Your task to perform on an android device: Search for Mexican restaurants on Maps Image 0: 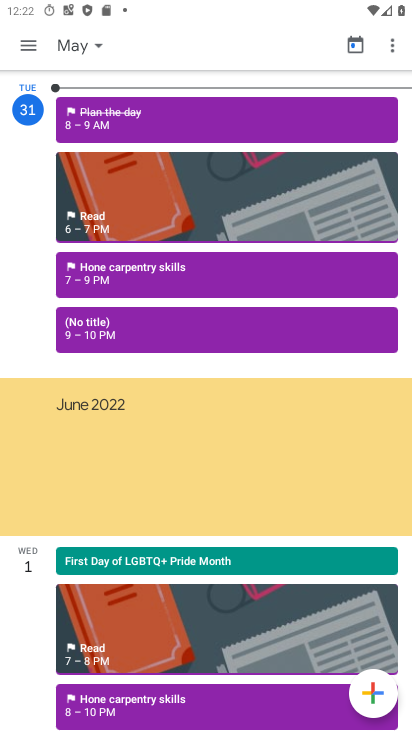
Step 0: press home button
Your task to perform on an android device: Search for Mexican restaurants on Maps Image 1: 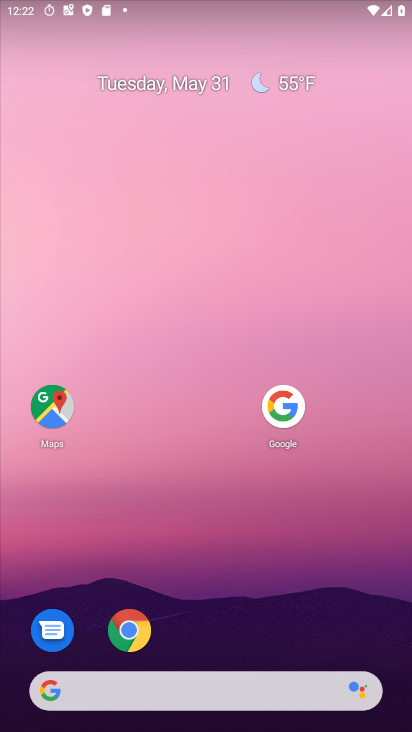
Step 1: click (44, 412)
Your task to perform on an android device: Search for Mexican restaurants on Maps Image 2: 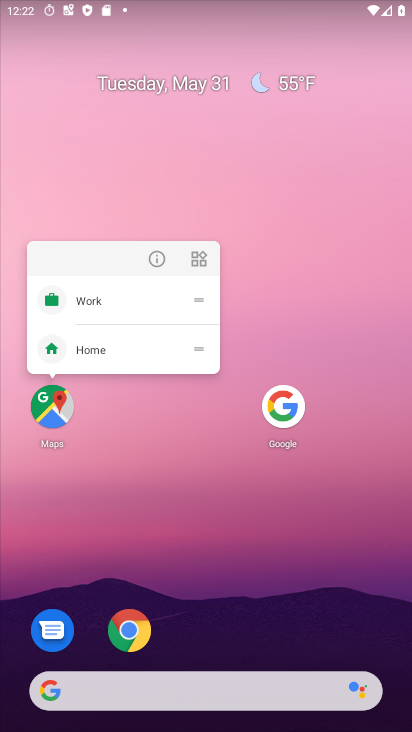
Step 2: click (51, 412)
Your task to perform on an android device: Search for Mexican restaurants on Maps Image 3: 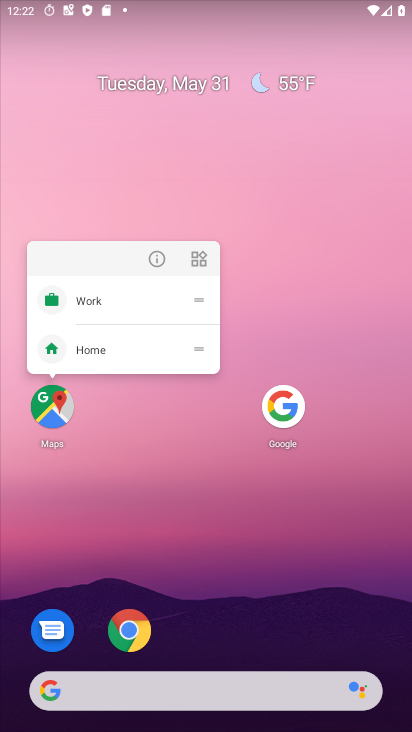
Step 3: click (51, 413)
Your task to perform on an android device: Search for Mexican restaurants on Maps Image 4: 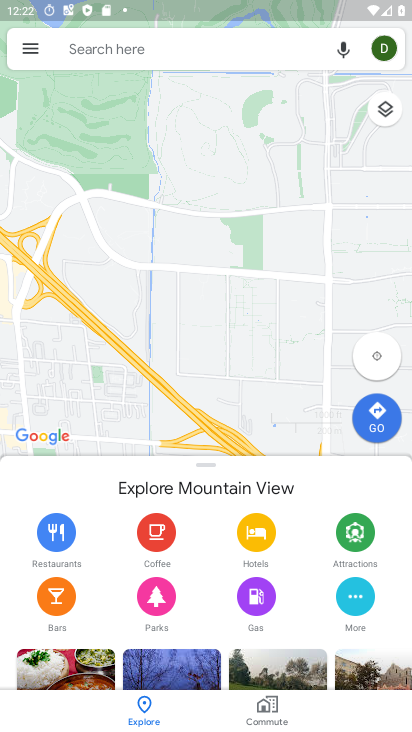
Step 4: click (215, 49)
Your task to perform on an android device: Search for Mexican restaurants on Maps Image 5: 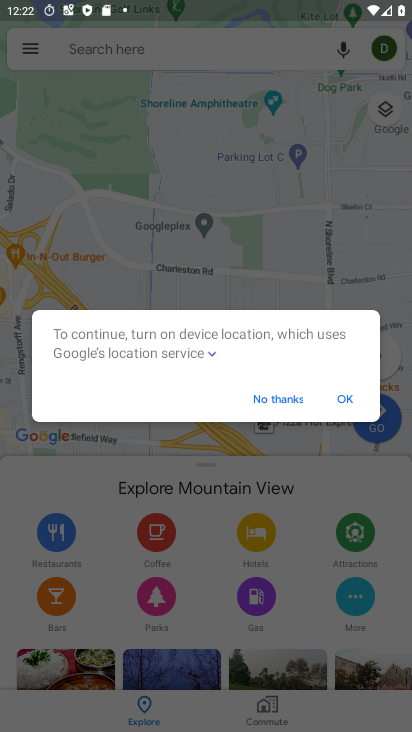
Step 5: click (346, 402)
Your task to perform on an android device: Search for Mexican restaurants on Maps Image 6: 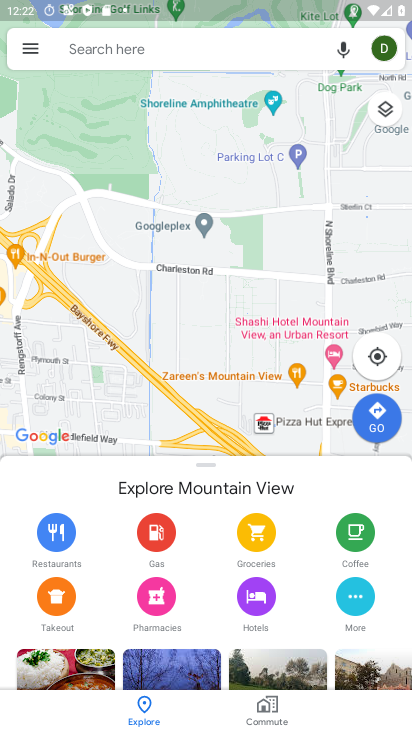
Step 6: click (254, 38)
Your task to perform on an android device: Search for Mexican restaurants on Maps Image 7: 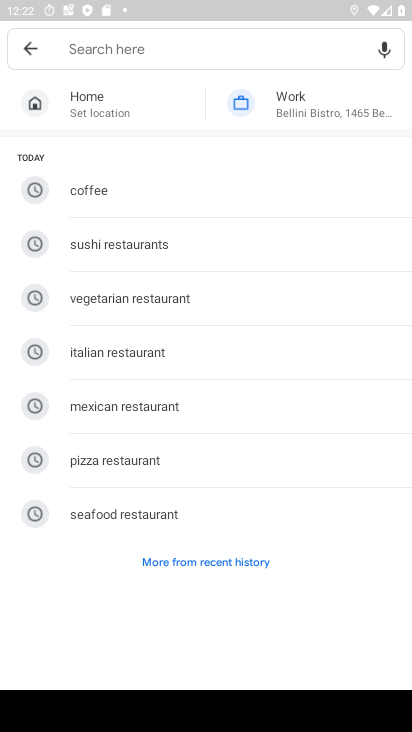
Step 7: click (137, 405)
Your task to perform on an android device: Search for Mexican restaurants on Maps Image 8: 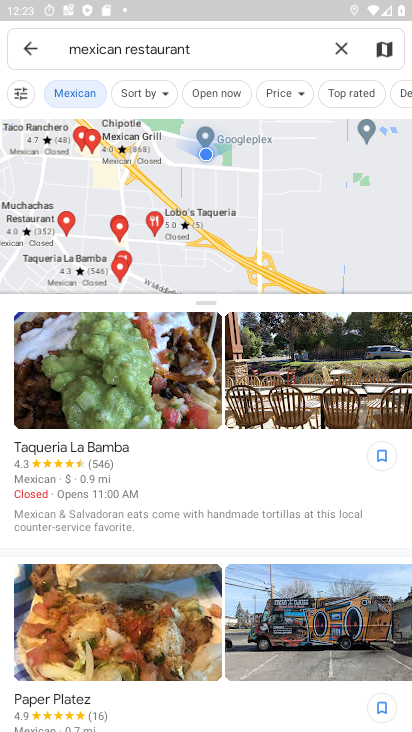
Step 8: task complete